Your task to perform on an android device: Open privacy settings Image 0: 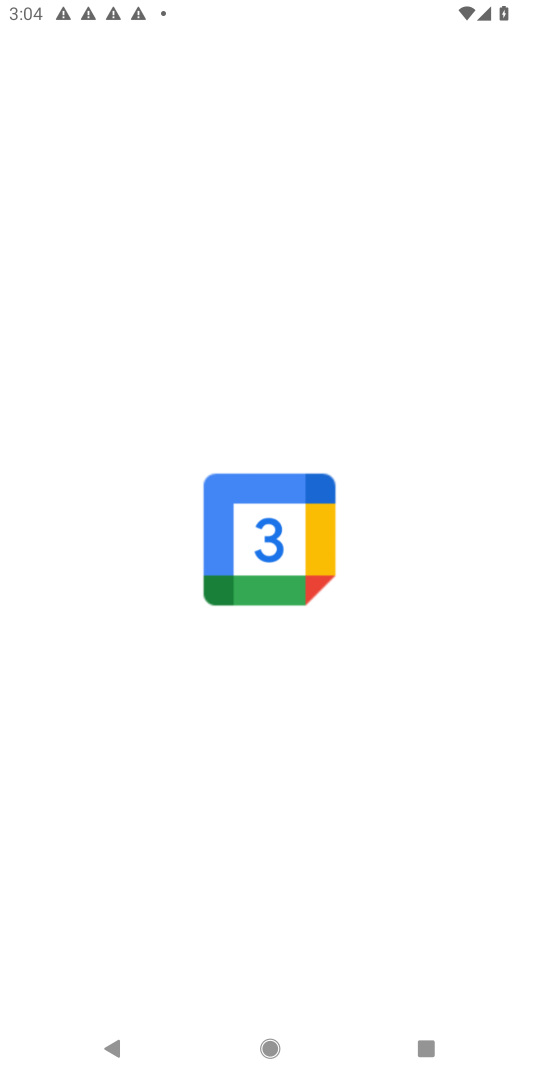
Step 0: press home button
Your task to perform on an android device: Open privacy settings Image 1: 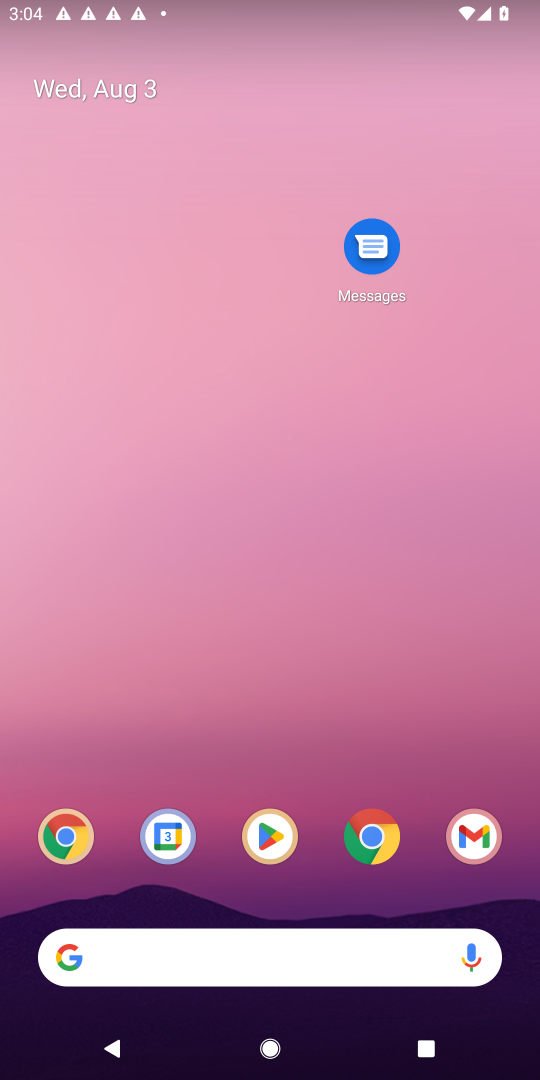
Step 1: click (370, 842)
Your task to perform on an android device: Open privacy settings Image 2: 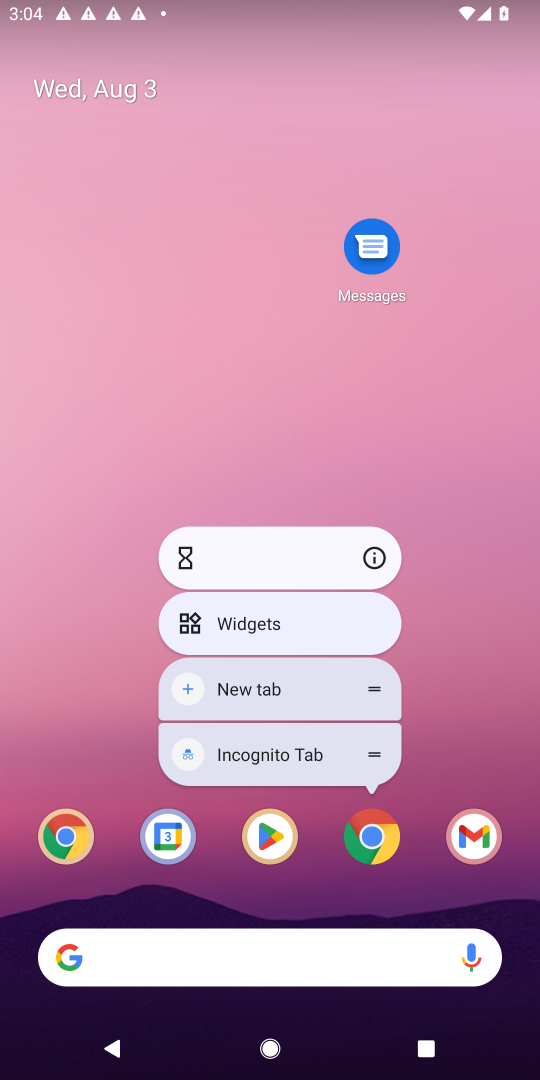
Step 2: click (359, 821)
Your task to perform on an android device: Open privacy settings Image 3: 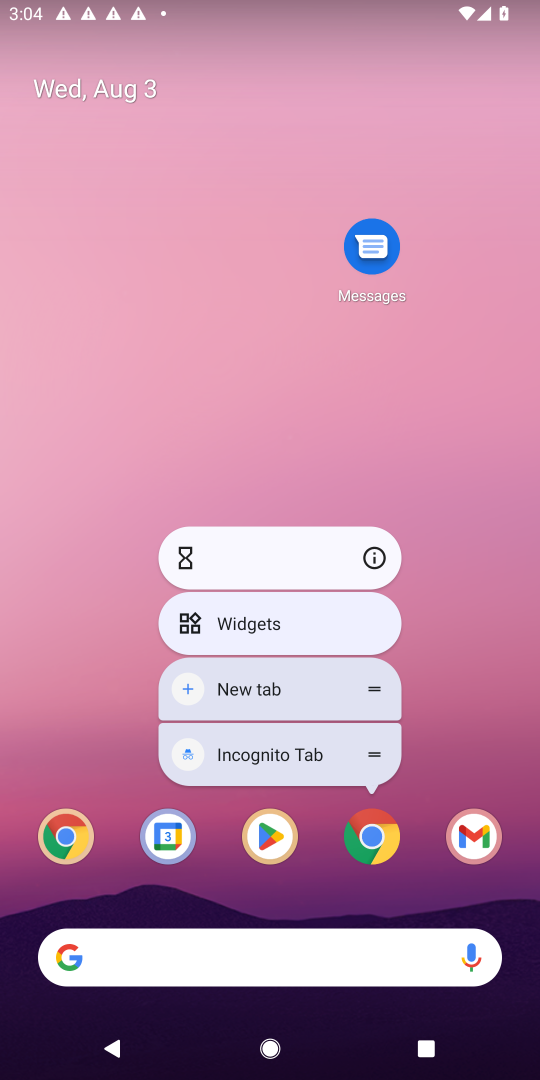
Step 3: click (372, 826)
Your task to perform on an android device: Open privacy settings Image 4: 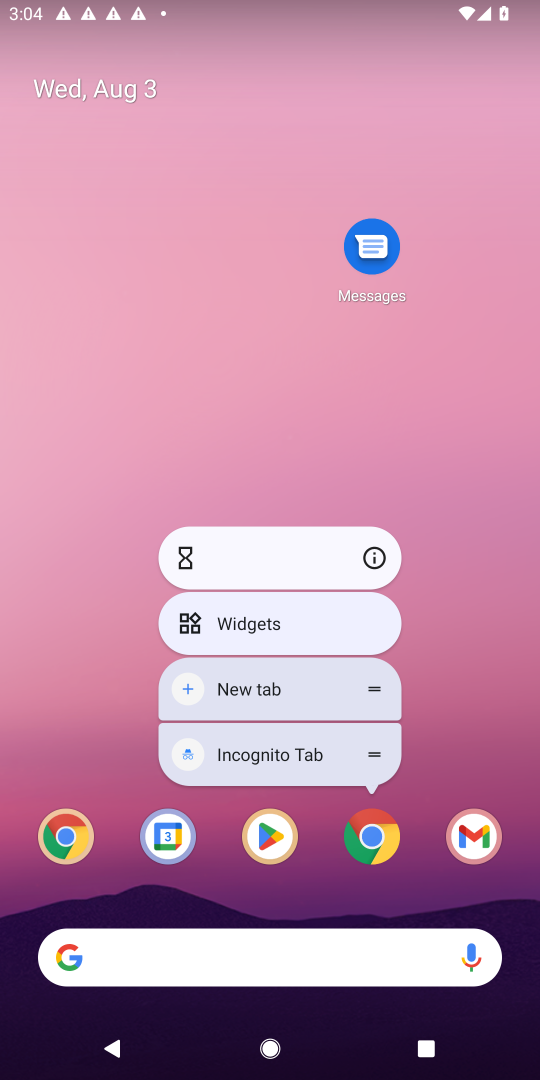
Step 4: click (357, 831)
Your task to perform on an android device: Open privacy settings Image 5: 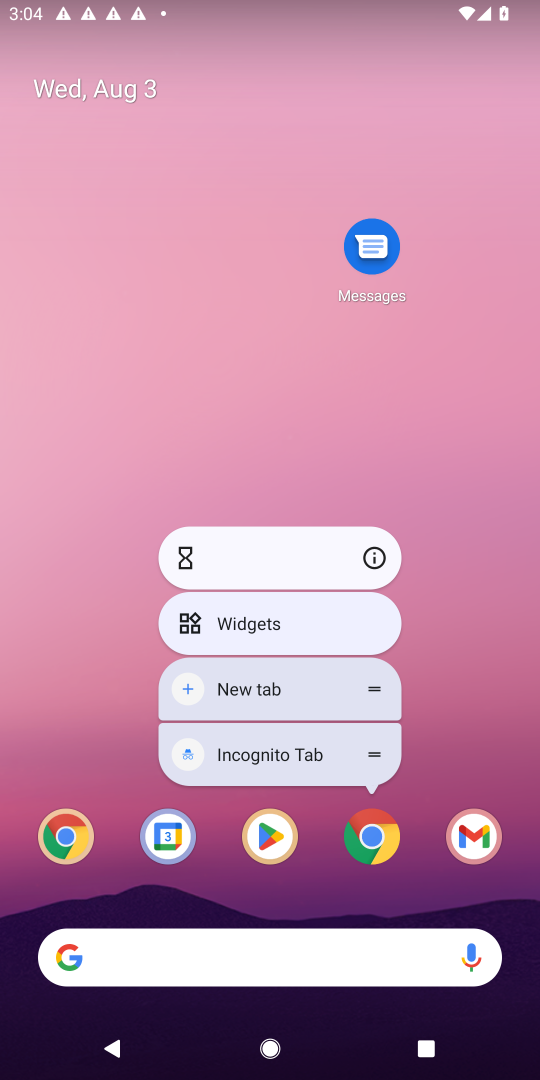
Step 5: click (362, 826)
Your task to perform on an android device: Open privacy settings Image 6: 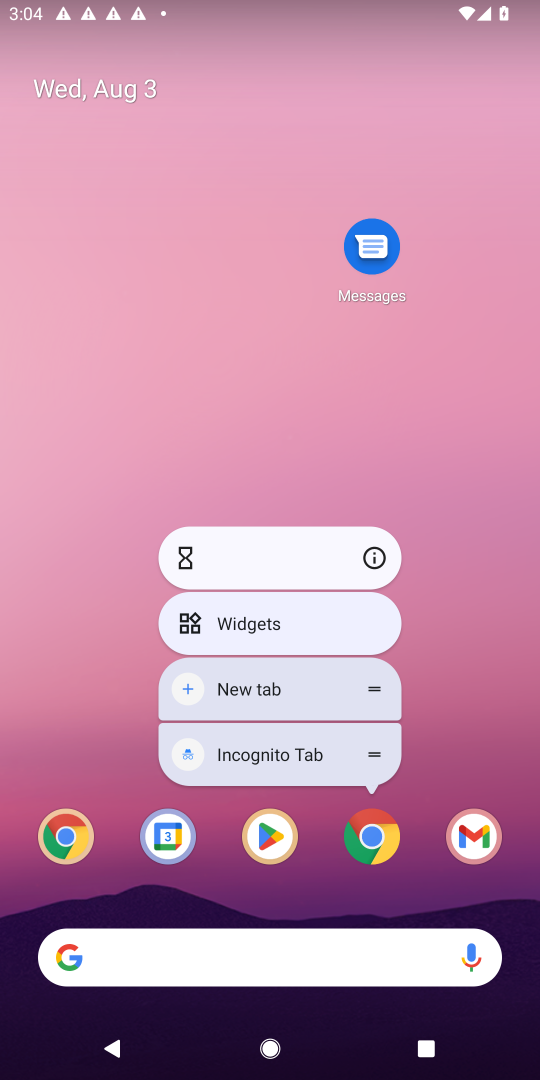
Step 6: click (368, 837)
Your task to perform on an android device: Open privacy settings Image 7: 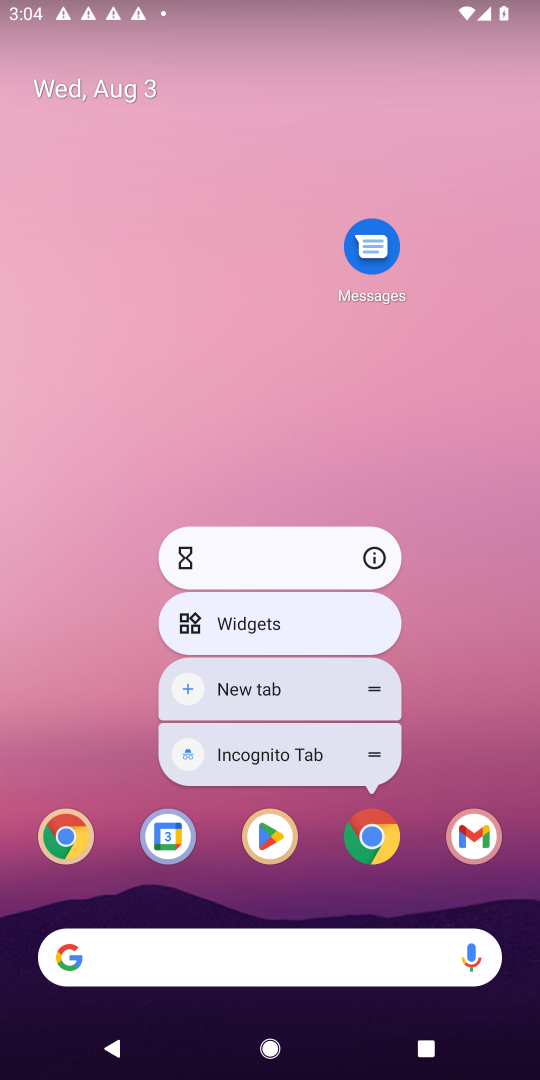
Step 7: click (389, 825)
Your task to perform on an android device: Open privacy settings Image 8: 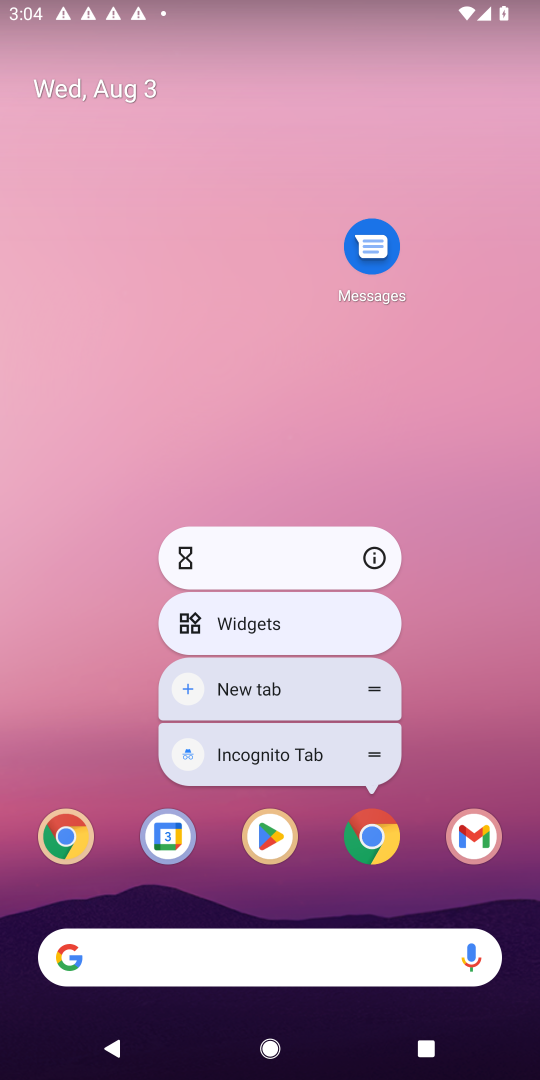
Step 8: task complete